Your task to perform on an android device: Open privacy settings Image 0: 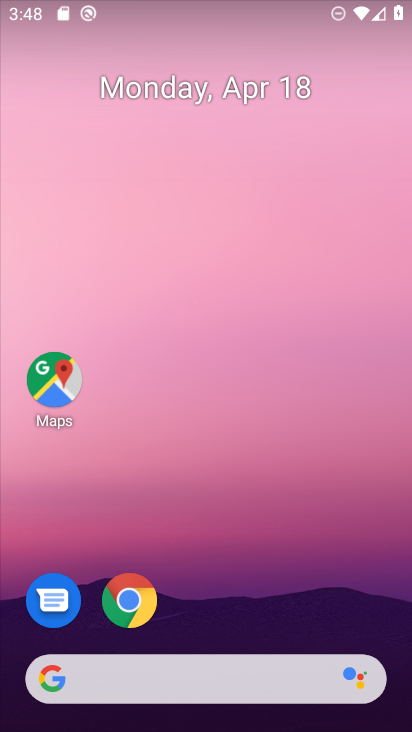
Step 0: drag from (213, 718) to (210, 254)
Your task to perform on an android device: Open privacy settings Image 1: 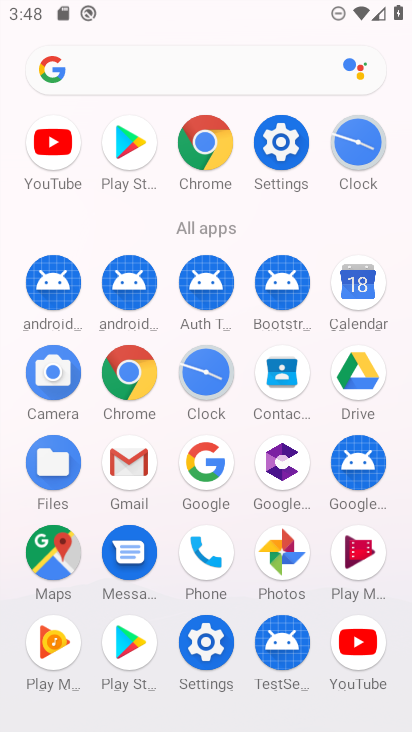
Step 1: click (208, 627)
Your task to perform on an android device: Open privacy settings Image 2: 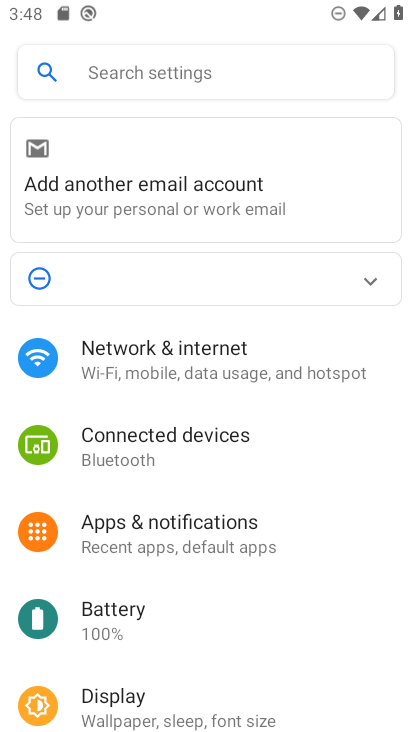
Step 2: drag from (171, 601) to (192, 380)
Your task to perform on an android device: Open privacy settings Image 3: 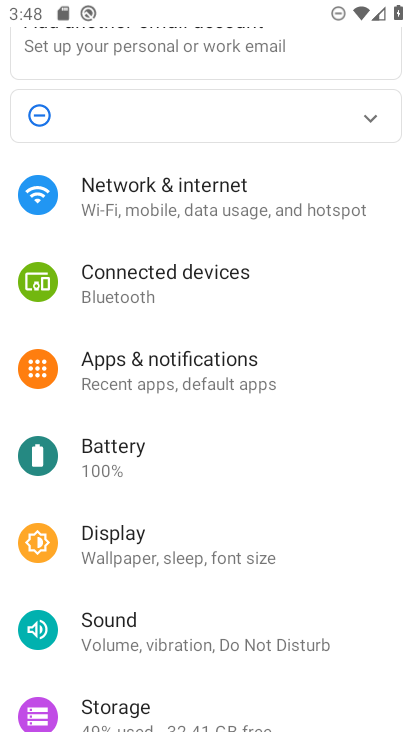
Step 3: drag from (133, 673) to (141, 533)
Your task to perform on an android device: Open privacy settings Image 4: 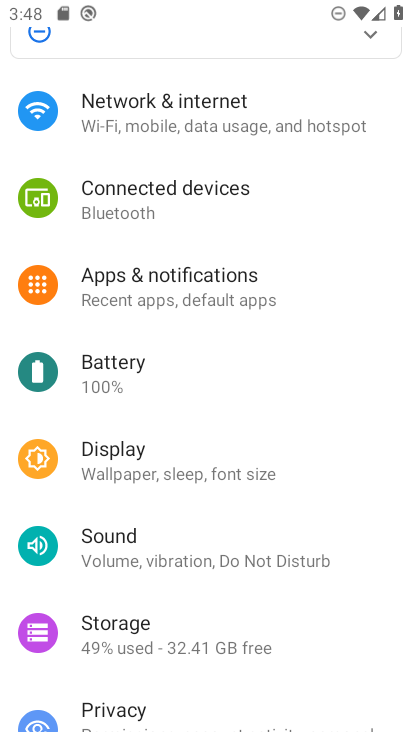
Step 4: click (103, 709)
Your task to perform on an android device: Open privacy settings Image 5: 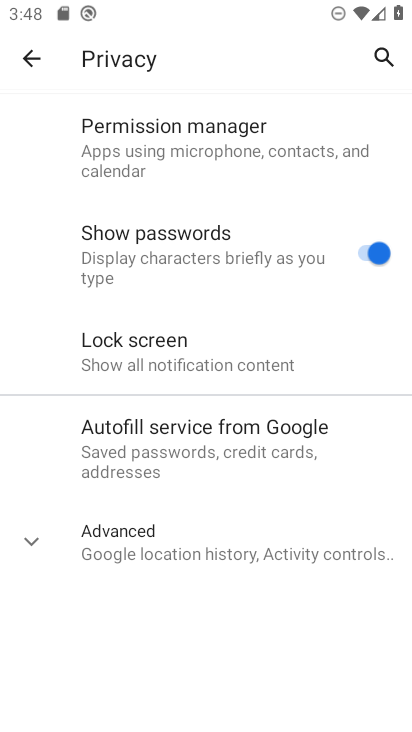
Step 5: click (51, 544)
Your task to perform on an android device: Open privacy settings Image 6: 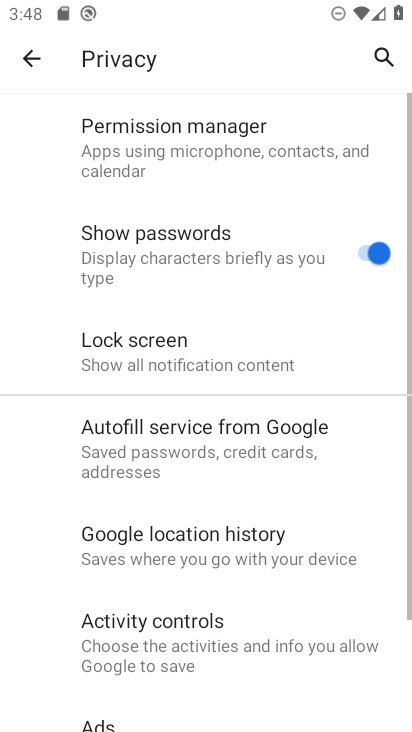
Step 6: task complete